Your task to perform on an android device: Open Youtube and go to "Your channel" Image 0: 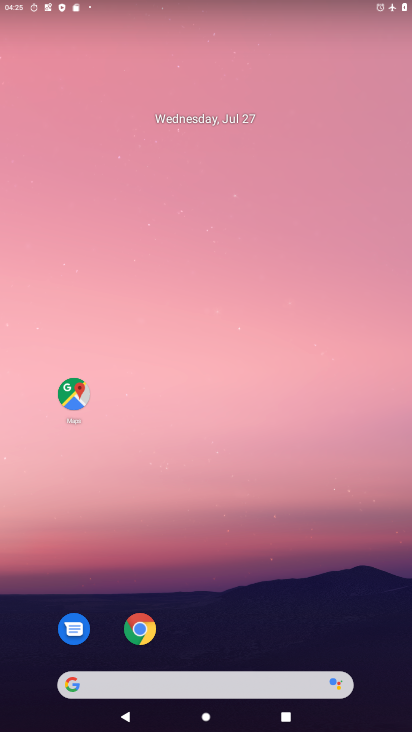
Step 0: drag from (291, 564) to (283, 69)
Your task to perform on an android device: Open Youtube and go to "Your channel" Image 1: 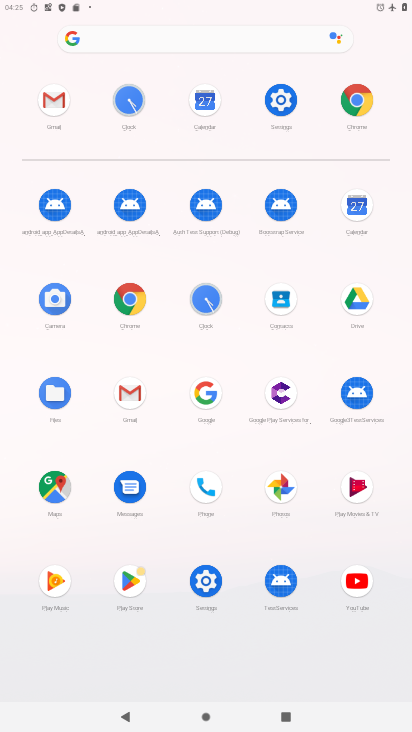
Step 1: click (367, 589)
Your task to perform on an android device: Open Youtube and go to "Your channel" Image 2: 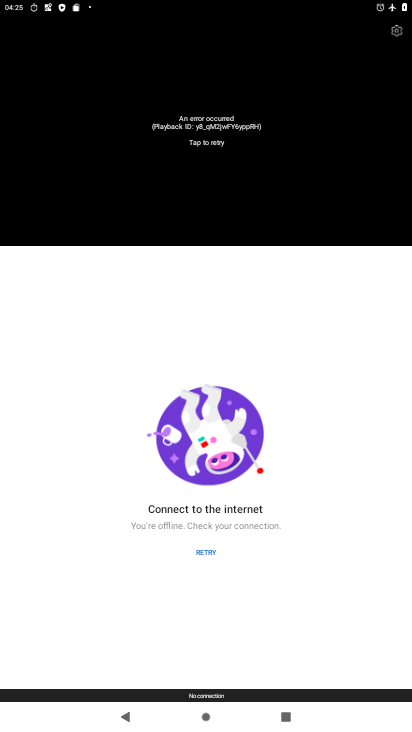
Step 2: press back button
Your task to perform on an android device: Open Youtube and go to "Your channel" Image 3: 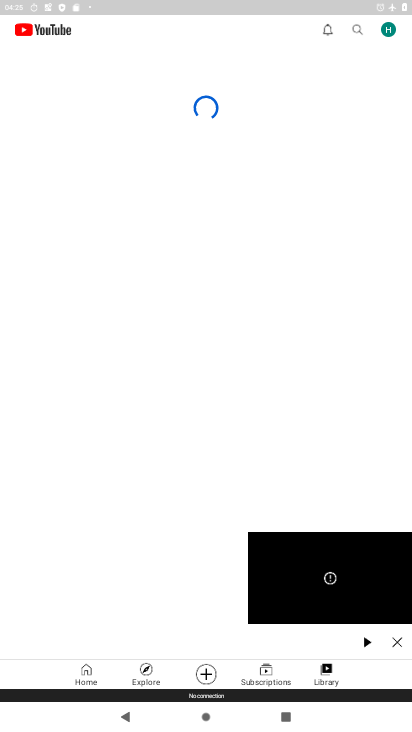
Step 3: click (384, 26)
Your task to perform on an android device: Open Youtube and go to "Your channel" Image 4: 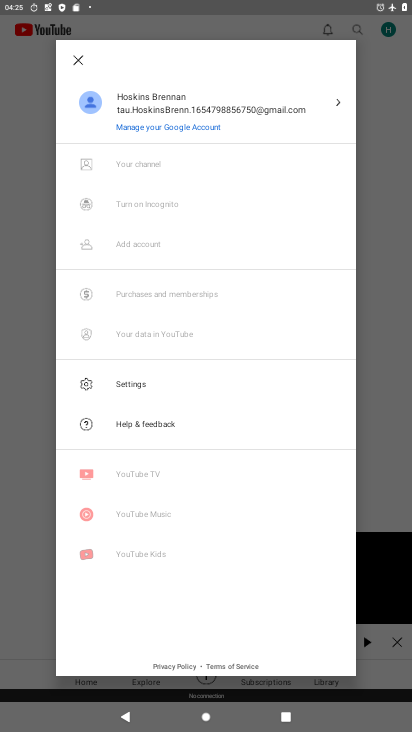
Step 4: click (157, 158)
Your task to perform on an android device: Open Youtube and go to "Your channel" Image 5: 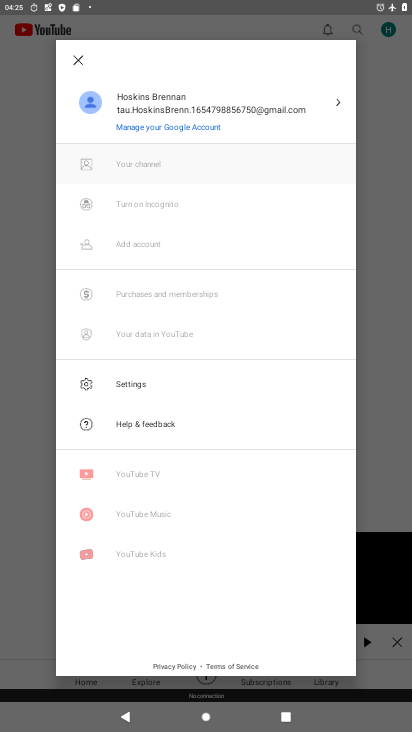
Step 5: click (157, 158)
Your task to perform on an android device: Open Youtube and go to "Your channel" Image 6: 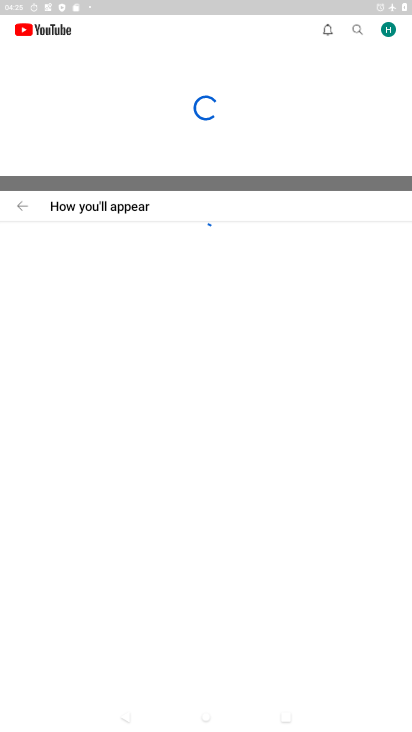
Step 6: click (157, 158)
Your task to perform on an android device: Open Youtube and go to "Your channel" Image 7: 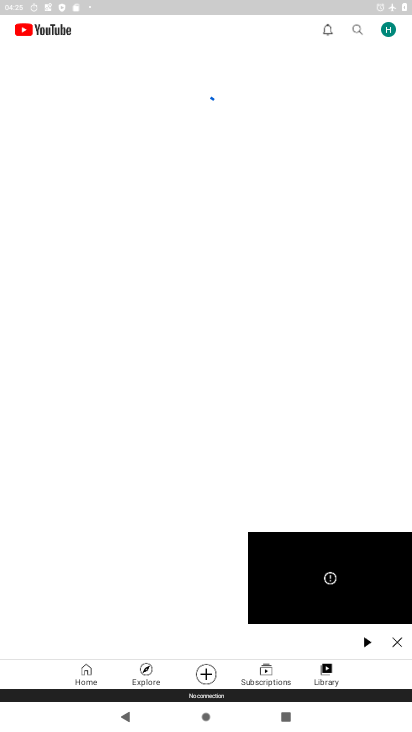
Step 7: task complete